Your task to perform on an android device: Check the weather Image 0: 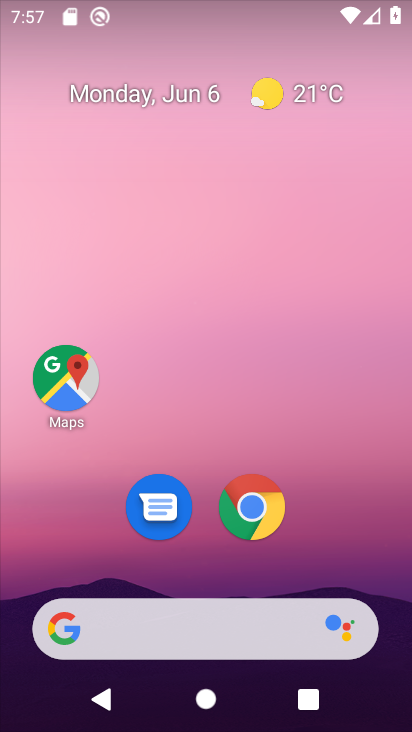
Step 0: click (248, 519)
Your task to perform on an android device: Check the weather Image 1: 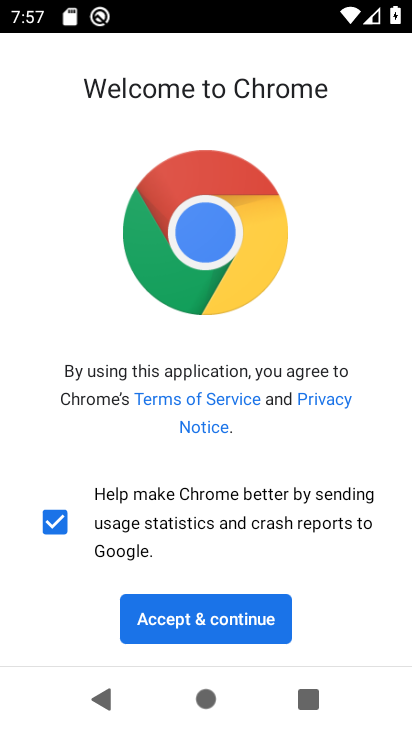
Step 1: click (241, 616)
Your task to perform on an android device: Check the weather Image 2: 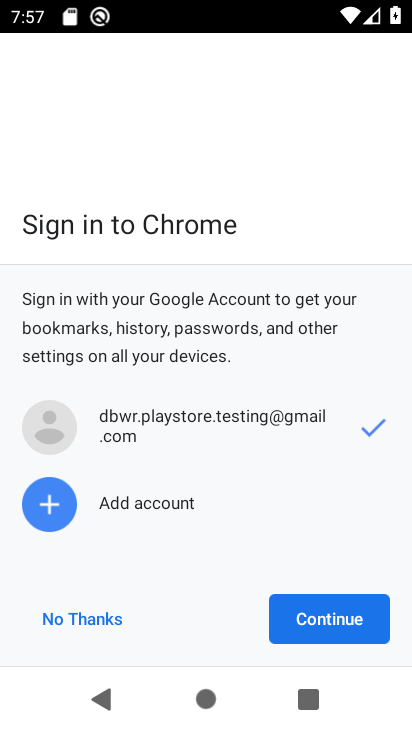
Step 2: click (354, 616)
Your task to perform on an android device: Check the weather Image 3: 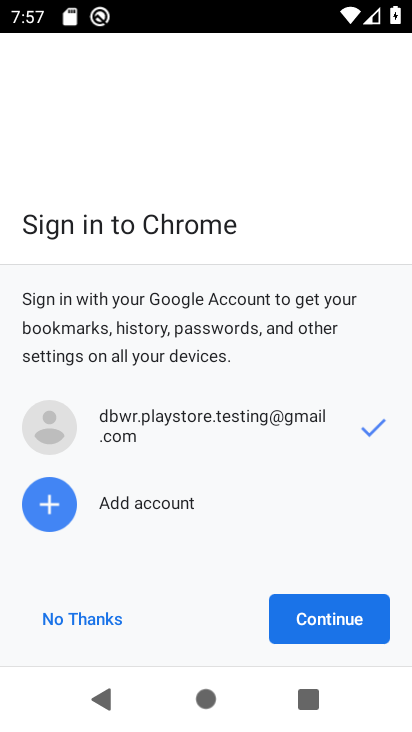
Step 3: click (354, 616)
Your task to perform on an android device: Check the weather Image 4: 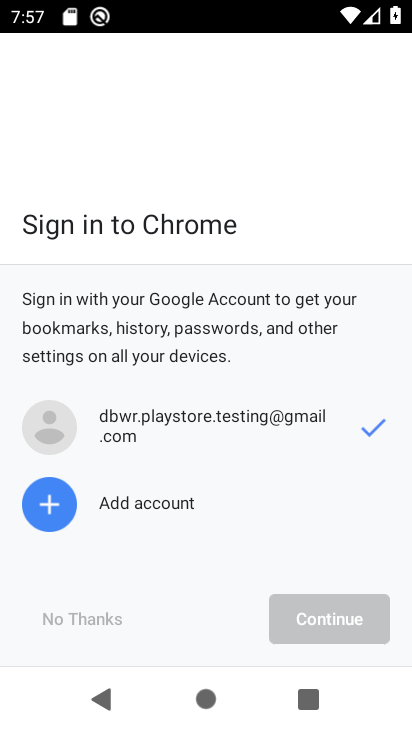
Step 4: click (354, 616)
Your task to perform on an android device: Check the weather Image 5: 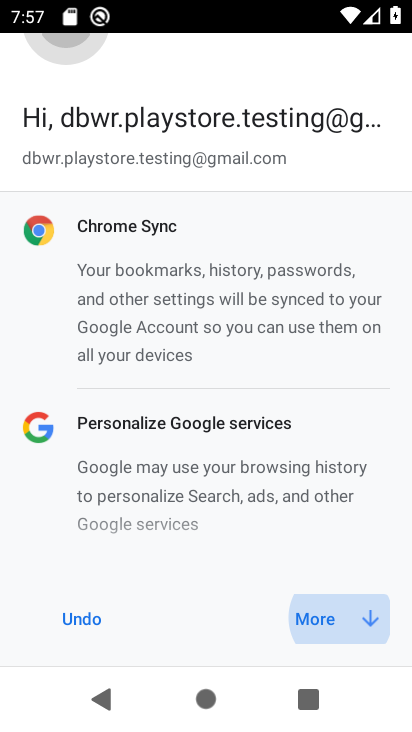
Step 5: click (354, 616)
Your task to perform on an android device: Check the weather Image 6: 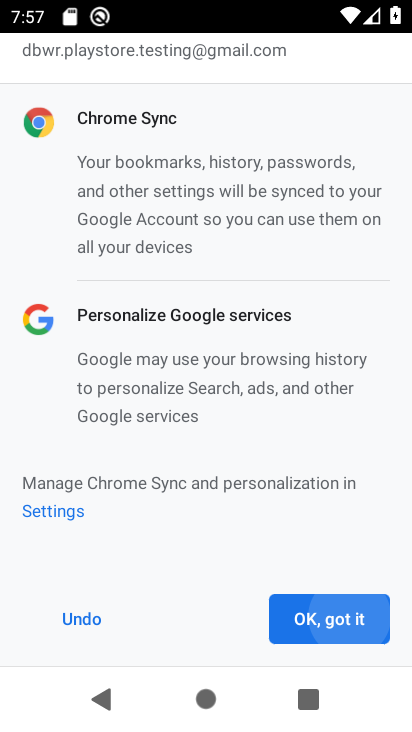
Step 6: click (354, 616)
Your task to perform on an android device: Check the weather Image 7: 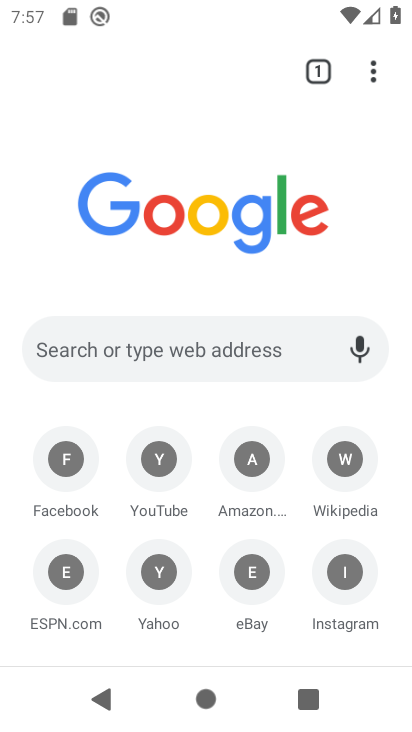
Step 7: click (249, 342)
Your task to perform on an android device: Check the weather Image 8: 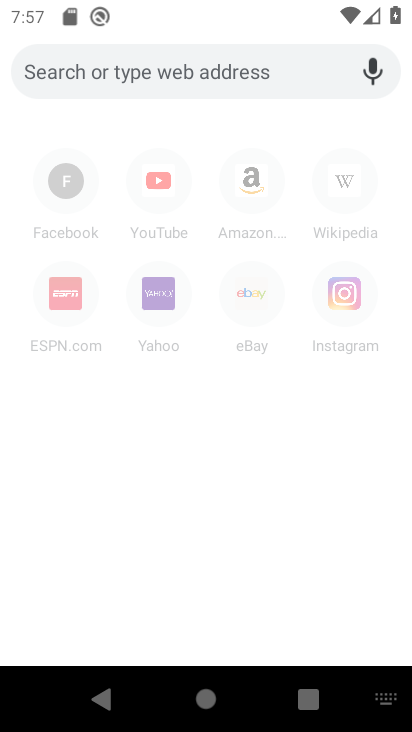
Step 8: type "Check the weather"
Your task to perform on an android device: Check the weather Image 9: 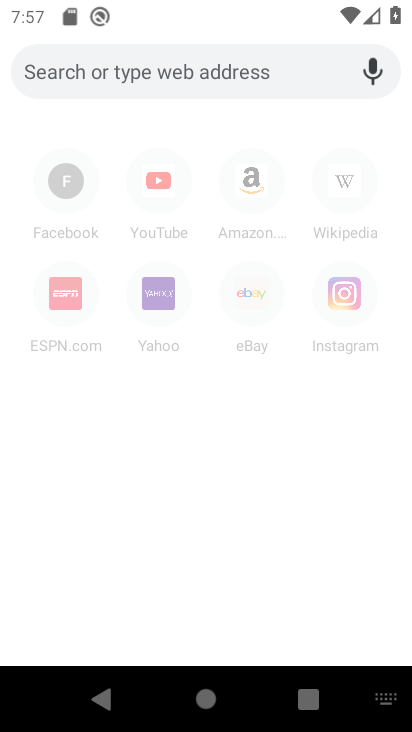
Step 9: click (283, 146)
Your task to perform on an android device: Check the weather Image 10: 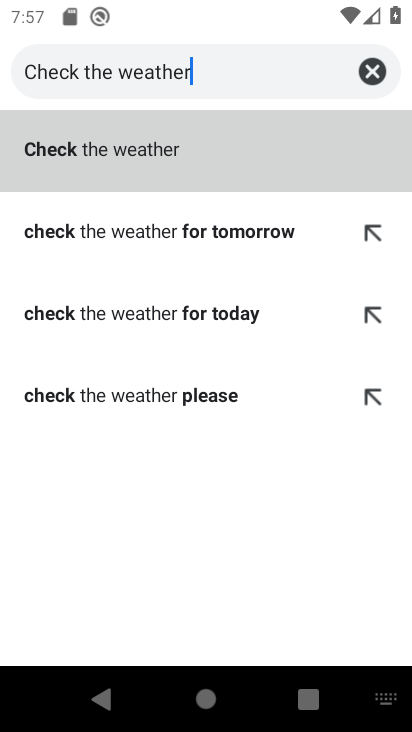
Step 10: type ""
Your task to perform on an android device: Check the weather Image 11: 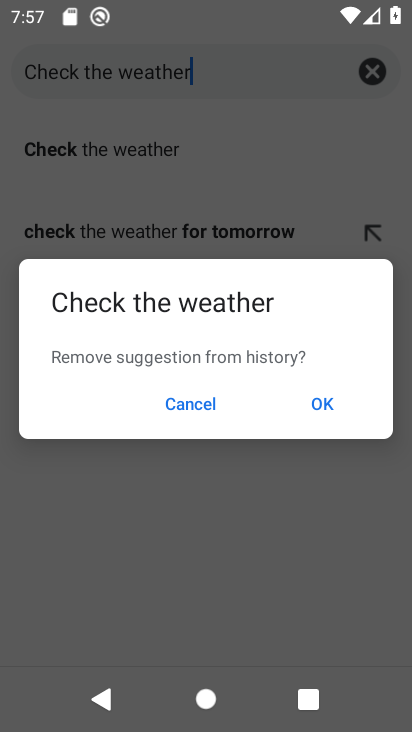
Step 11: click (218, 394)
Your task to perform on an android device: Check the weather Image 12: 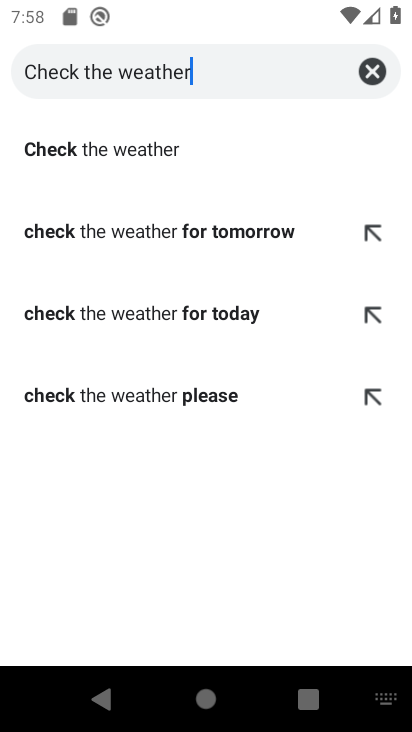
Step 12: click (248, 152)
Your task to perform on an android device: Check the weather Image 13: 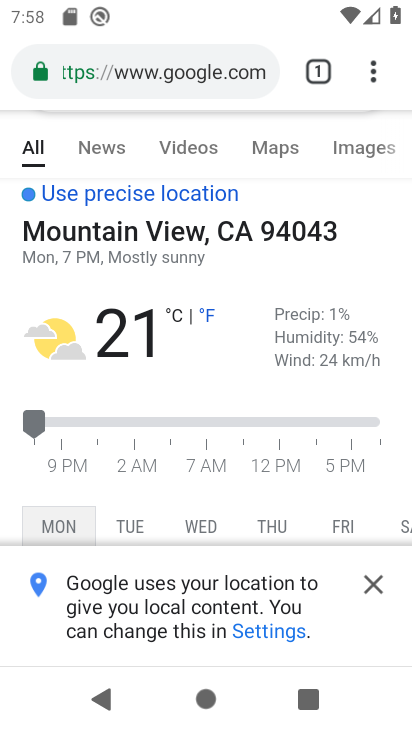
Step 13: task complete